Your task to perform on an android device: Open the map Image 0: 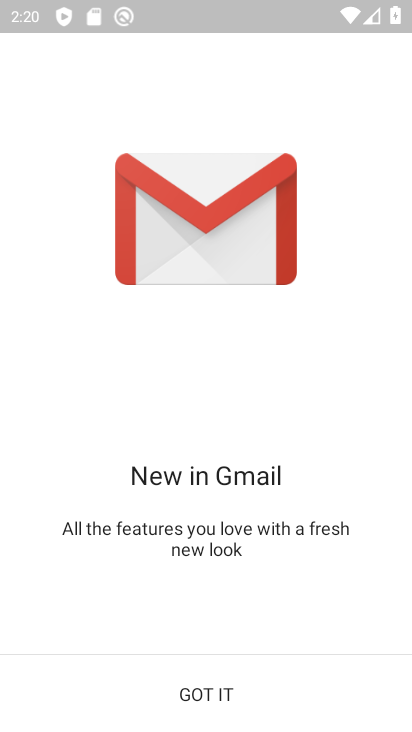
Step 0: press home button
Your task to perform on an android device: Open the map Image 1: 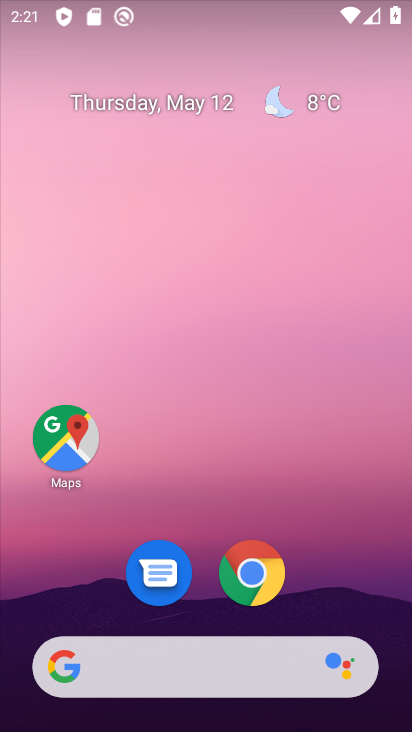
Step 1: click (62, 431)
Your task to perform on an android device: Open the map Image 2: 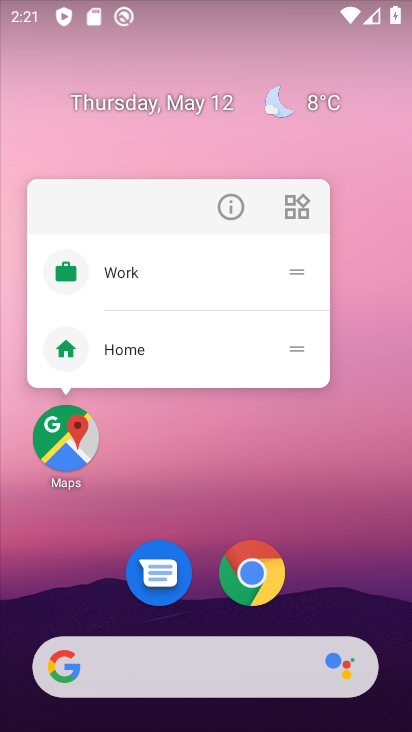
Step 2: click (65, 433)
Your task to perform on an android device: Open the map Image 3: 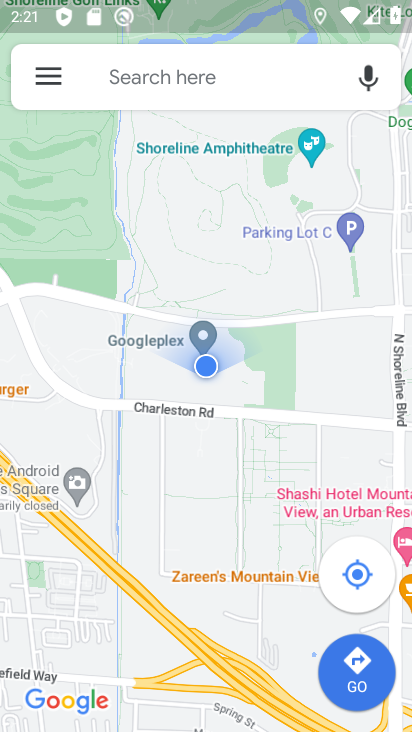
Step 3: task complete